Your task to perform on an android device: change notification settings in the gmail app Image 0: 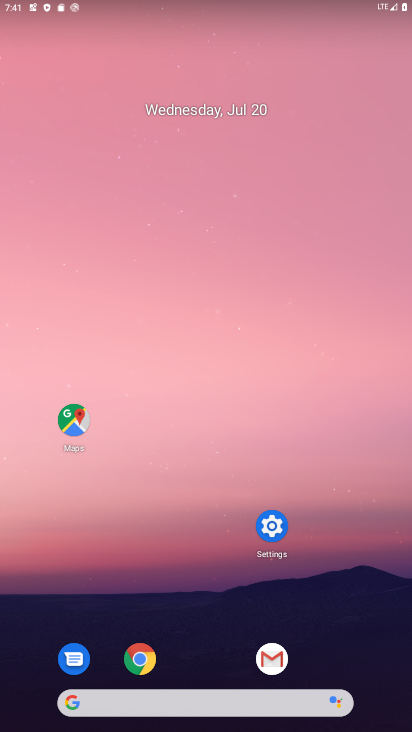
Step 0: click (279, 647)
Your task to perform on an android device: change notification settings in the gmail app Image 1: 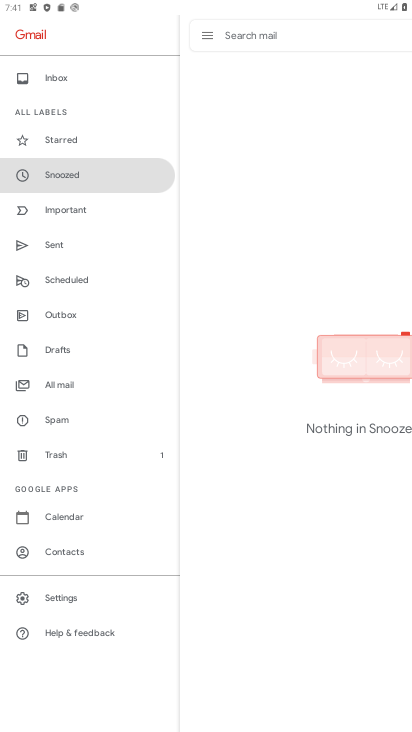
Step 1: click (82, 595)
Your task to perform on an android device: change notification settings in the gmail app Image 2: 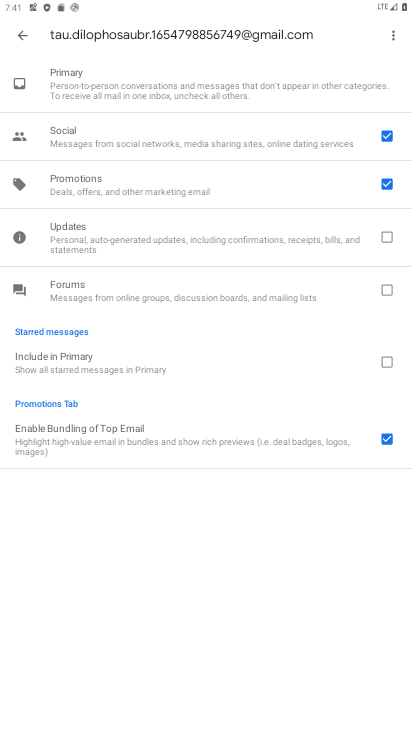
Step 2: click (14, 39)
Your task to perform on an android device: change notification settings in the gmail app Image 3: 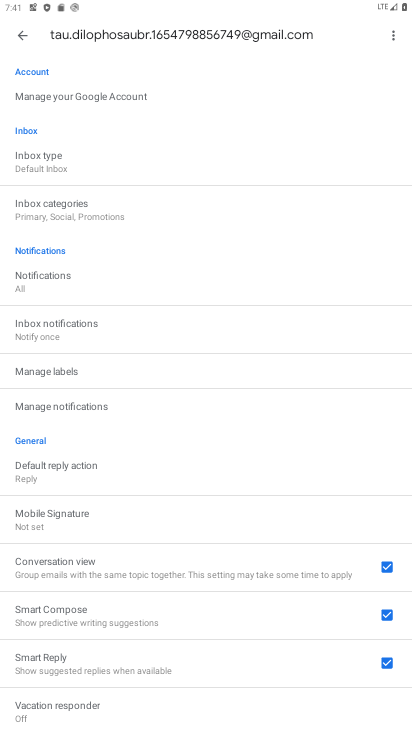
Step 3: click (86, 325)
Your task to perform on an android device: change notification settings in the gmail app Image 4: 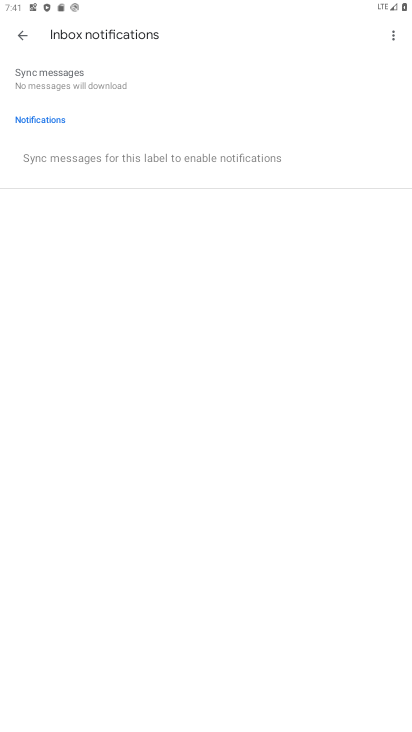
Step 4: click (8, 39)
Your task to perform on an android device: change notification settings in the gmail app Image 5: 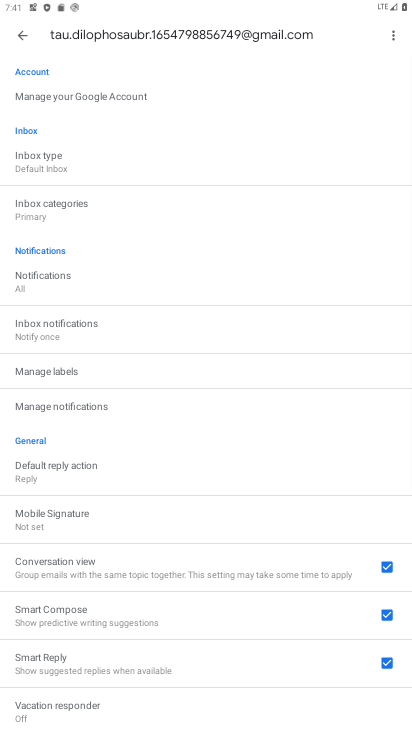
Step 5: click (77, 277)
Your task to perform on an android device: change notification settings in the gmail app Image 6: 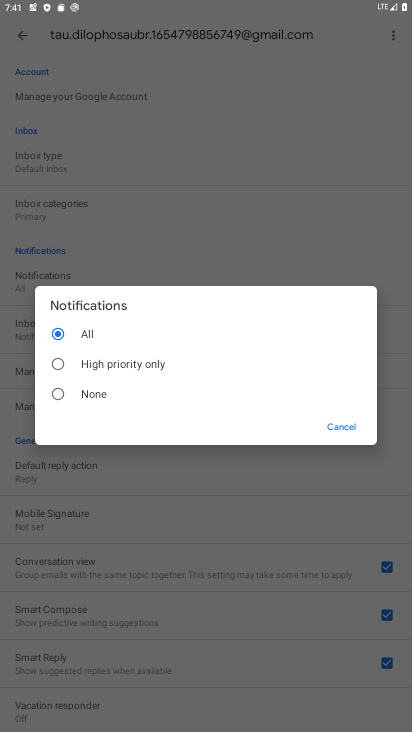
Step 6: click (97, 371)
Your task to perform on an android device: change notification settings in the gmail app Image 7: 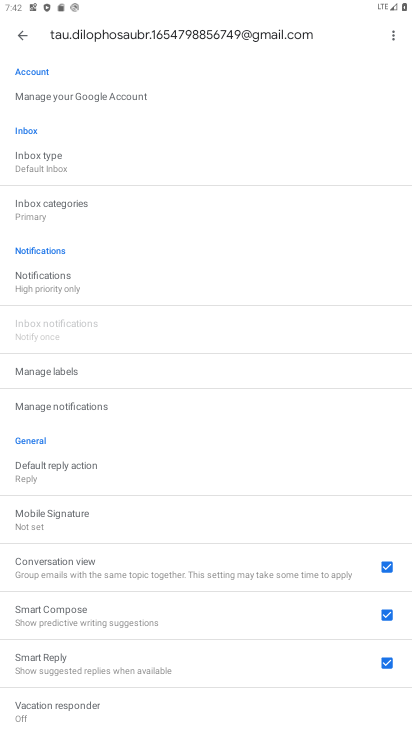
Step 7: task complete